Your task to perform on an android device: change notification settings in the gmail app Image 0: 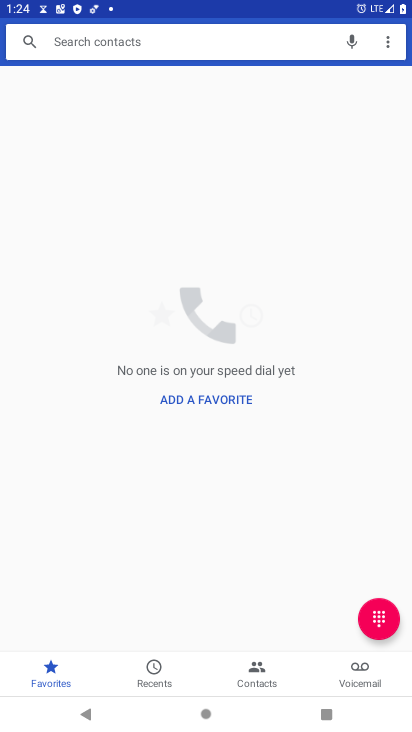
Step 0: press home button
Your task to perform on an android device: change notification settings in the gmail app Image 1: 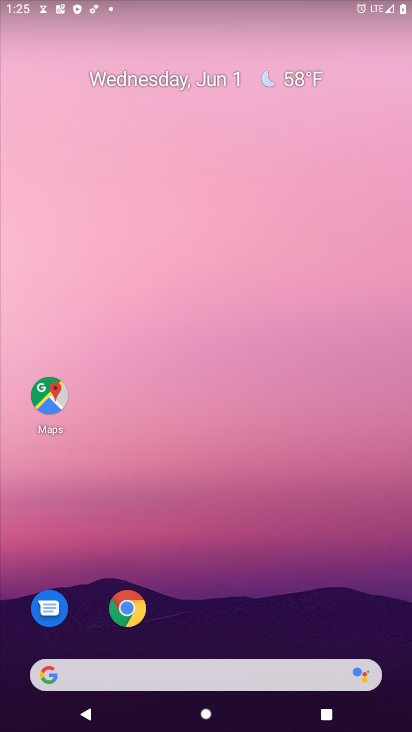
Step 1: drag from (201, 570) to (208, 149)
Your task to perform on an android device: change notification settings in the gmail app Image 2: 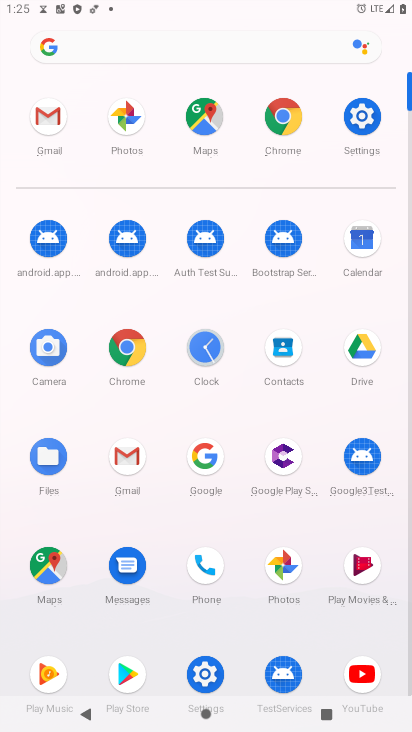
Step 2: click (46, 117)
Your task to perform on an android device: change notification settings in the gmail app Image 3: 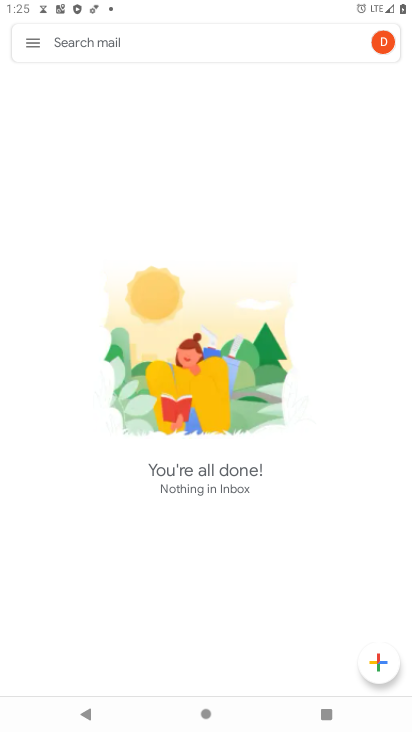
Step 3: click (20, 40)
Your task to perform on an android device: change notification settings in the gmail app Image 4: 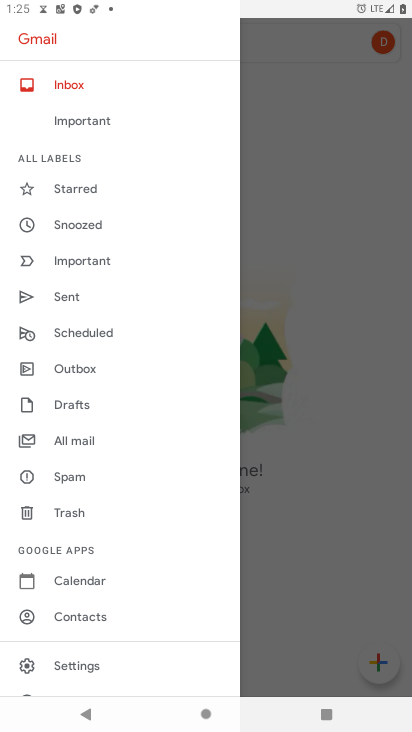
Step 4: click (93, 657)
Your task to perform on an android device: change notification settings in the gmail app Image 5: 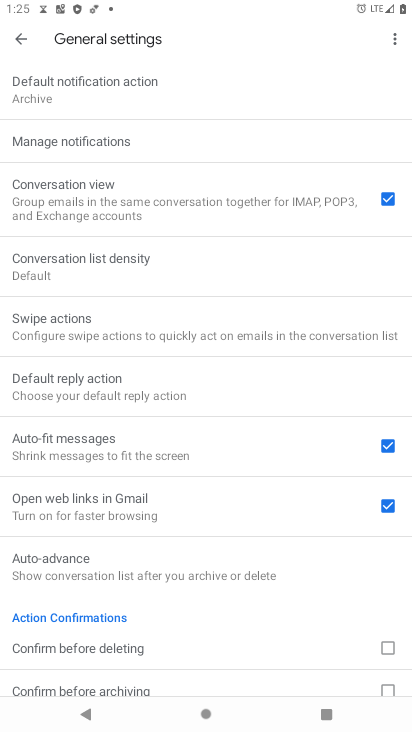
Step 5: click (115, 137)
Your task to perform on an android device: change notification settings in the gmail app Image 6: 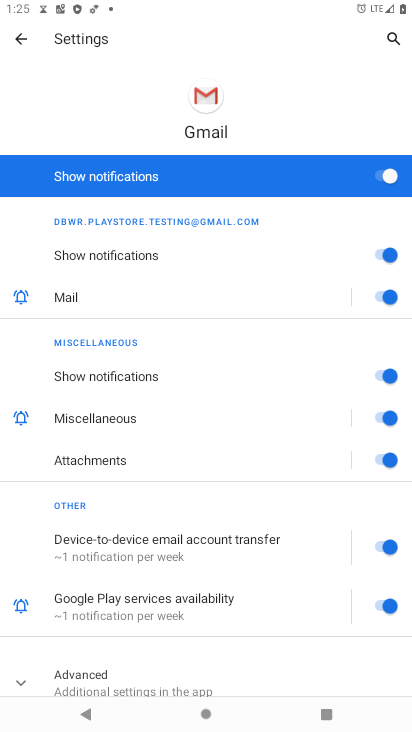
Step 6: click (406, 268)
Your task to perform on an android device: change notification settings in the gmail app Image 7: 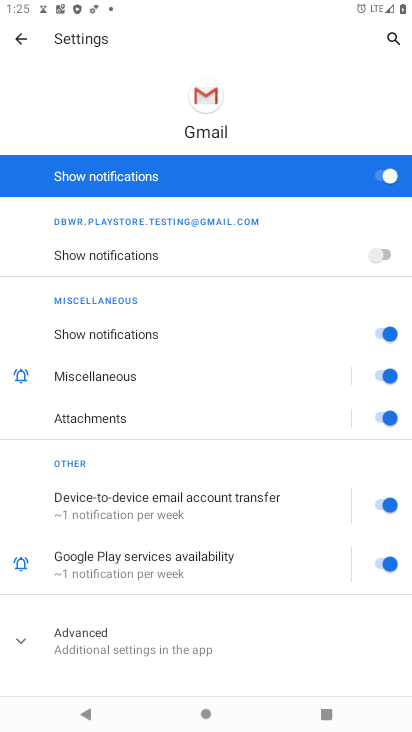
Step 7: task complete